Your task to perform on an android device: Open eBay Image 0: 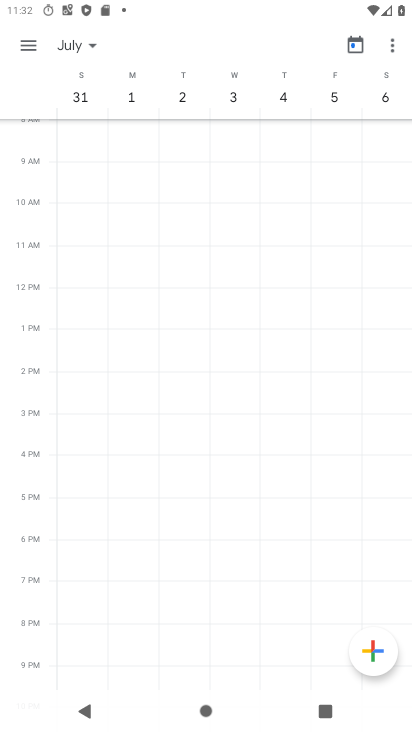
Step 0: press back button
Your task to perform on an android device: Open eBay Image 1: 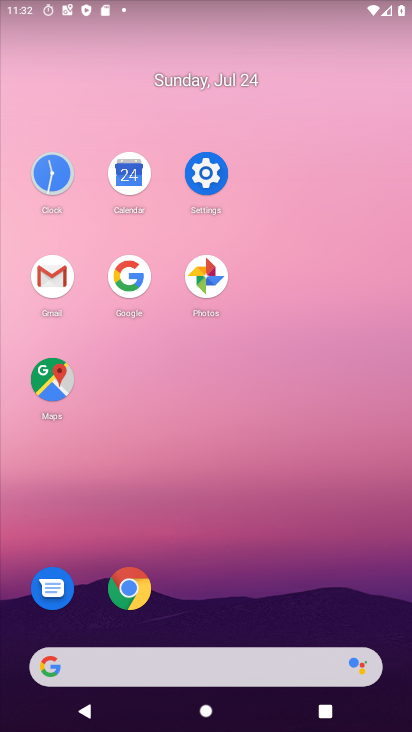
Step 1: click (139, 586)
Your task to perform on an android device: Open eBay Image 2: 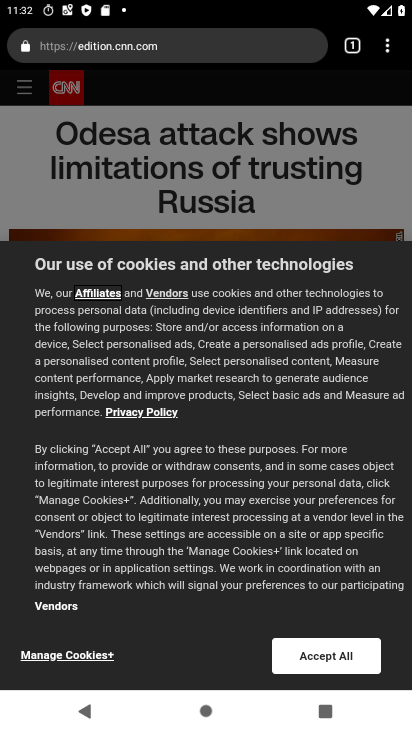
Step 2: task complete